Your task to perform on an android device: Open settings Image 0: 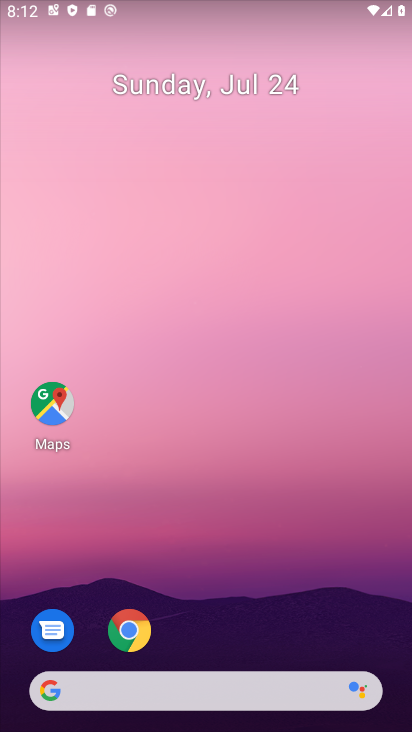
Step 0: drag from (231, 640) to (272, 317)
Your task to perform on an android device: Open settings Image 1: 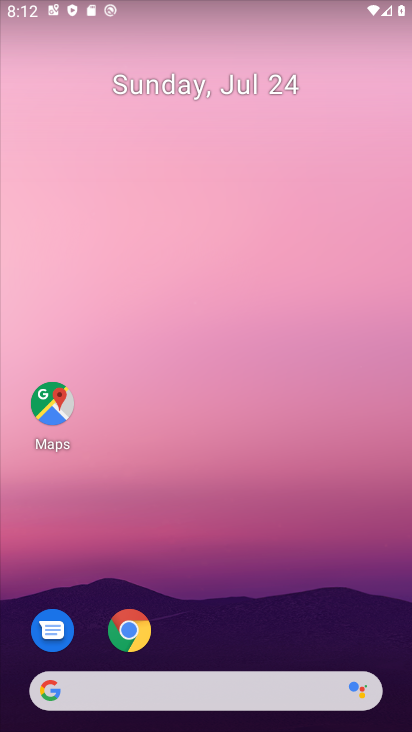
Step 1: drag from (209, 627) to (227, 8)
Your task to perform on an android device: Open settings Image 2: 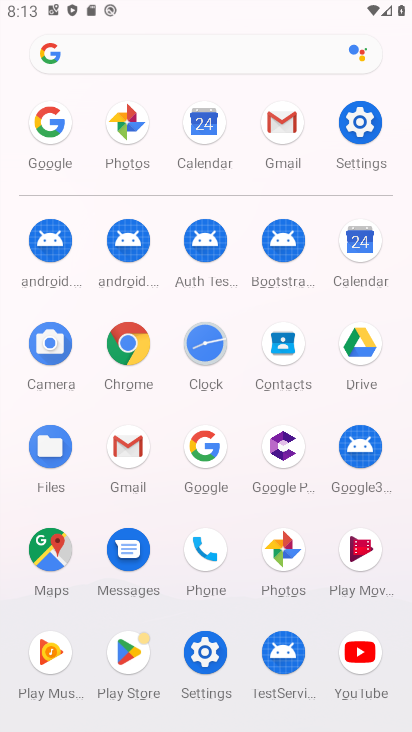
Step 2: click (361, 150)
Your task to perform on an android device: Open settings Image 3: 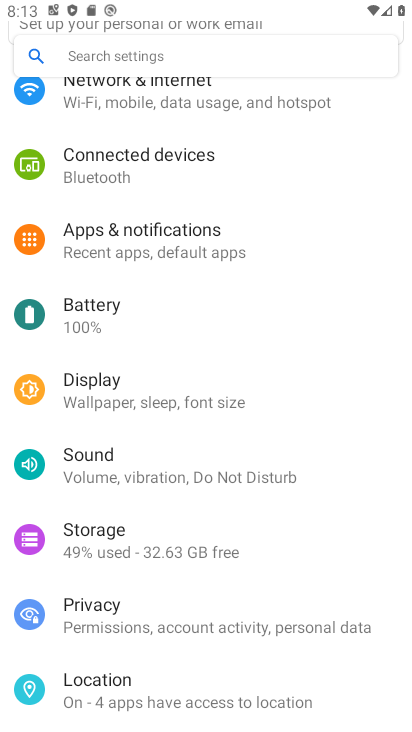
Step 3: task complete